Your task to perform on an android device: Go to Android settings Image 0: 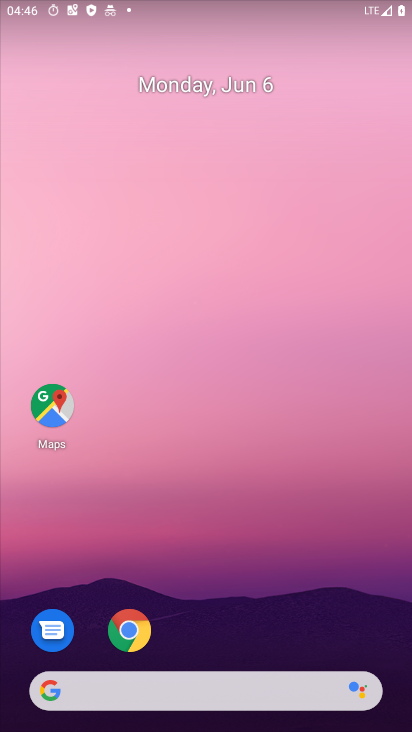
Step 0: drag from (304, 610) to (344, 55)
Your task to perform on an android device: Go to Android settings Image 1: 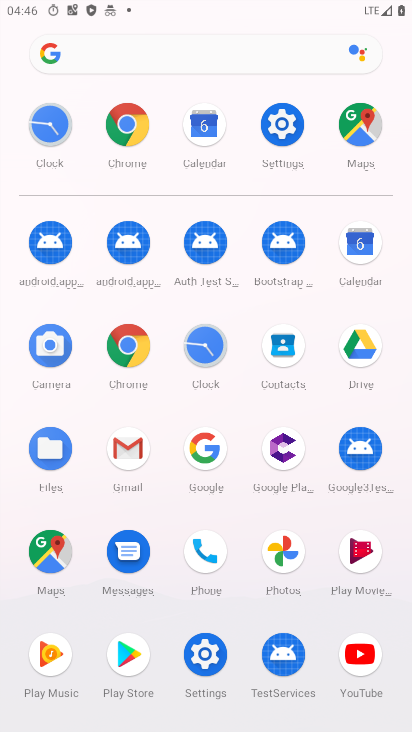
Step 1: click (199, 646)
Your task to perform on an android device: Go to Android settings Image 2: 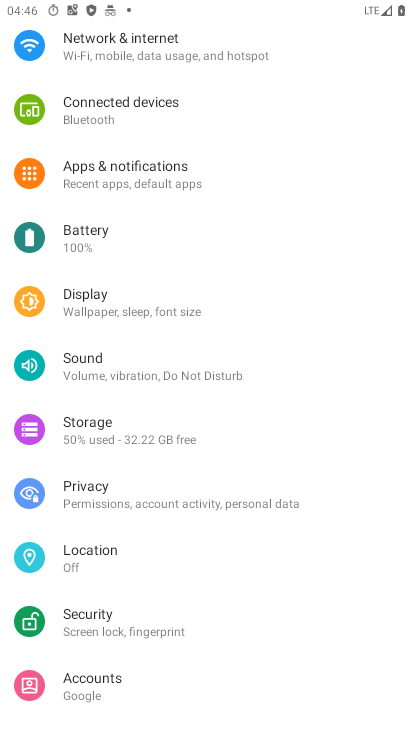
Step 2: drag from (166, 622) to (187, 222)
Your task to perform on an android device: Go to Android settings Image 3: 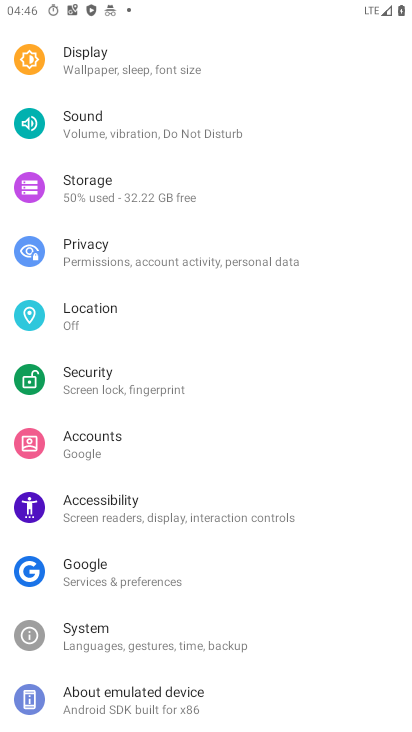
Step 3: click (134, 698)
Your task to perform on an android device: Go to Android settings Image 4: 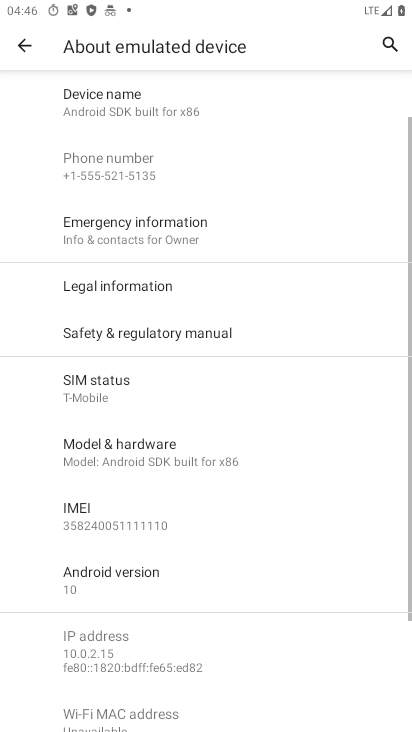
Step 4: drag from (253, 647) to (245, 404)
Your task to perform on an android device: Go to Android settings Image 5: 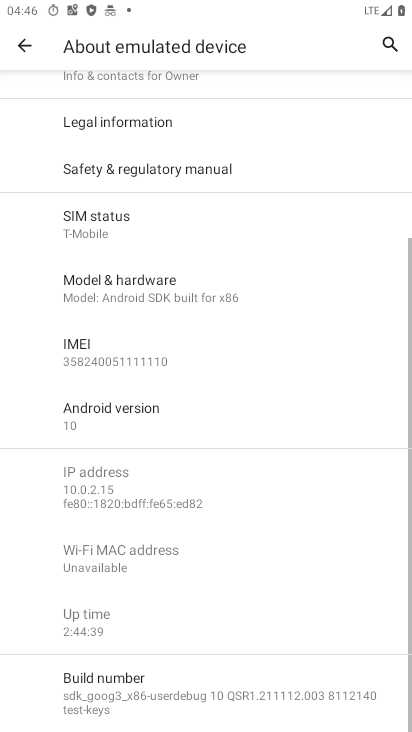
Step 5: click (134, 406)
Your task to perform on an android device: Go to Android settings Image 6: 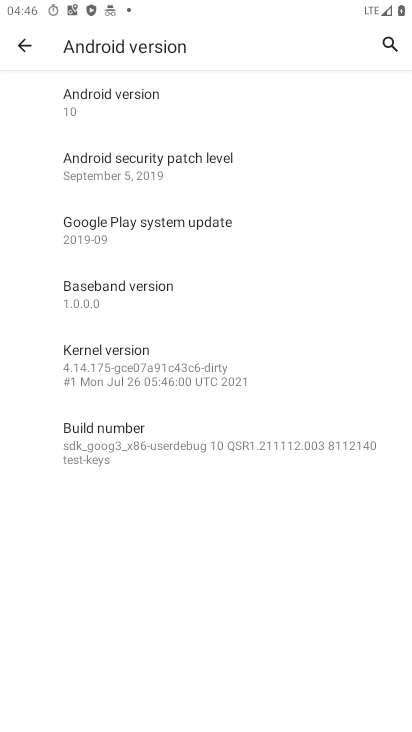
Step 6: task complete